Your task to perform on an android device: open the mobile data screen to see how much data has been used Image 0: 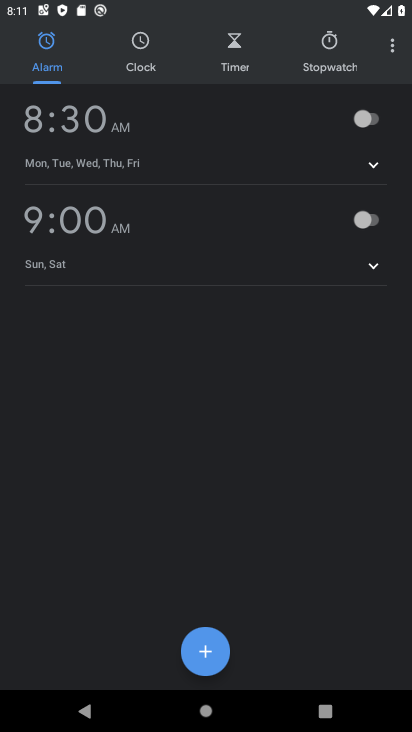
Step 0: press home button
Your task to perform on an android device: open the mobile data screen to see how much data has been used Image 1: 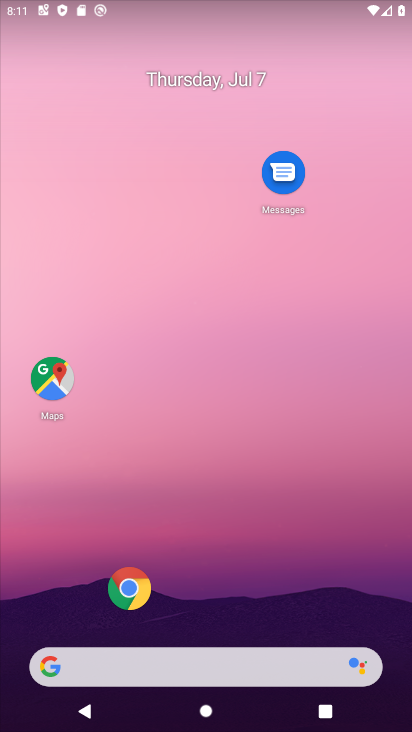
Step 1: drag from (25, 715) to (351, 10)
Your task to perform on an android device: open the mobile data screen to see how much data has been used Image 2: 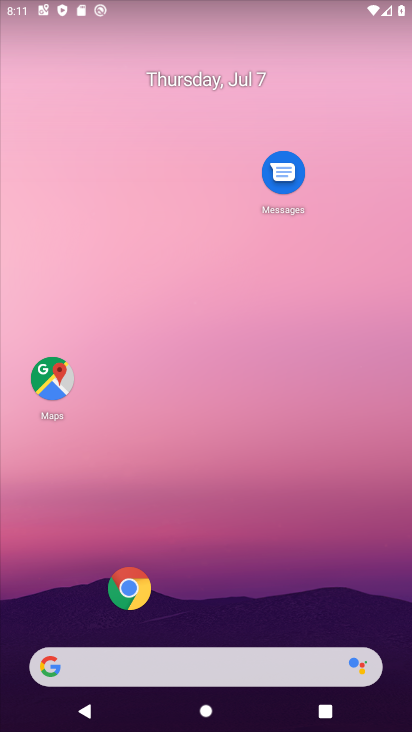
Step 2: drag from (18, 719) to (311, 35)
Your task to perform on an android device: open the mobile data screen to see how much data has been used Image 3: 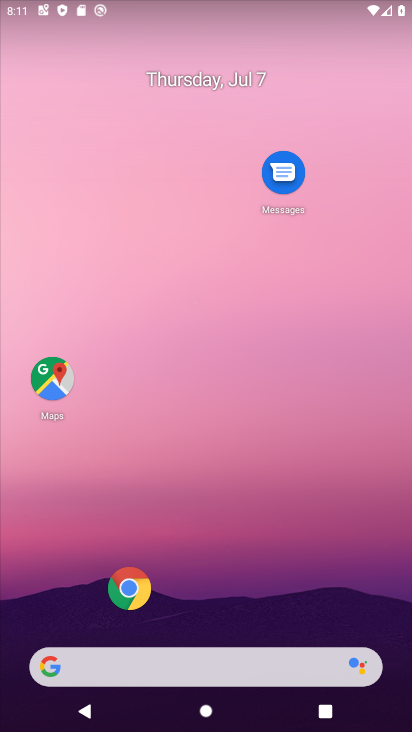
Step 3: drag from (26, 713) to (325, 23)
Your task to perform on an android device: open the mobile data screen to see how much data has been used Image 4: 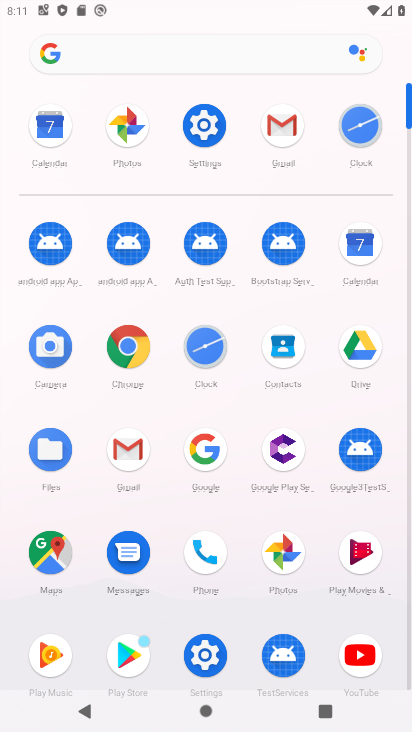
Step 4: click (204, 658)
Your task to perform on an android device: open the mobile data screen to see how much data has been used Image 5: 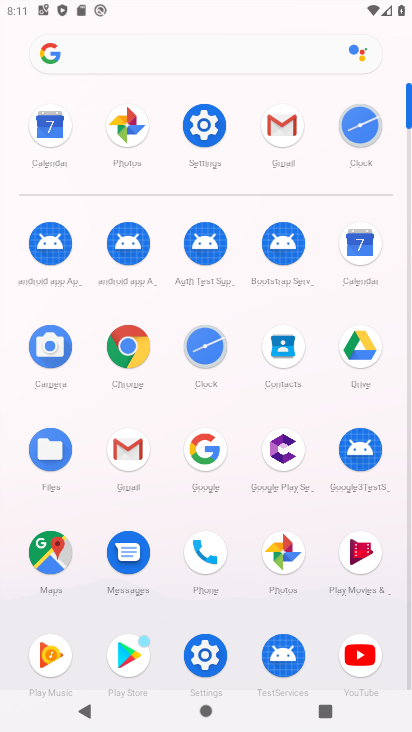
Step 5: click (204, 658)
Your task to perform on an android device: open the mobile data screen to see how much data has been used Image 6: 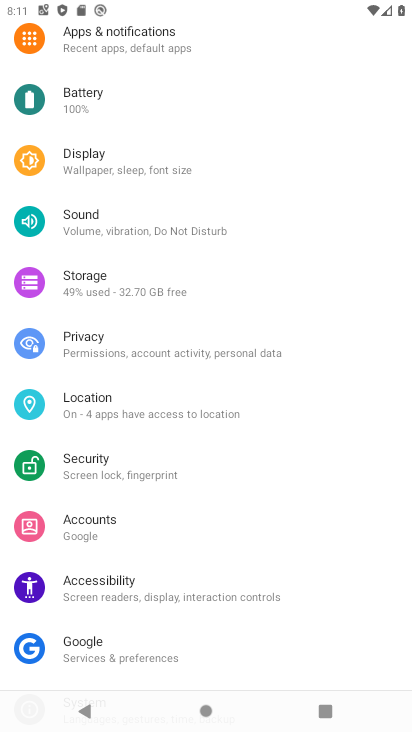
Step 6: drag from (289, 417) to (351, 48)
Your task to perform on an android device: open the mobile data screen to see how much data has been used Image 7: 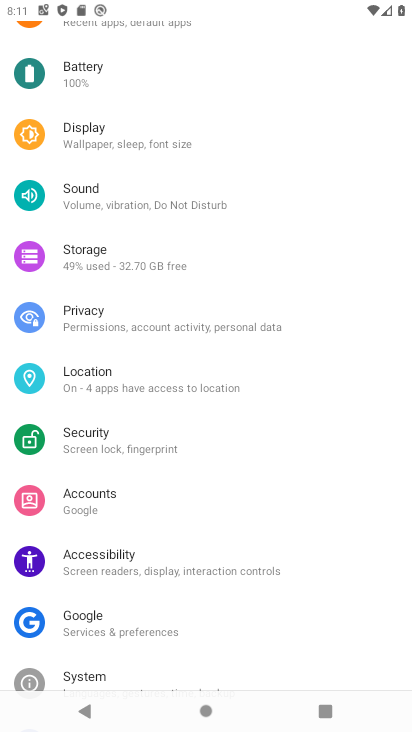
Step 7: click (284, 0)
Your task to perform on an android device: open the mobile data screen to see how much data has been used Image 8: 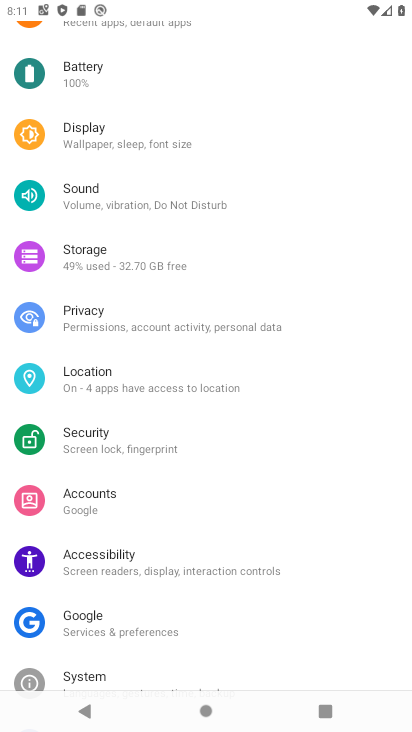
Step 8: drag from (221, 204) to (224, 83)
Your task to perform on an android device: open the mobile data screen to see how much data has been used Image 9: 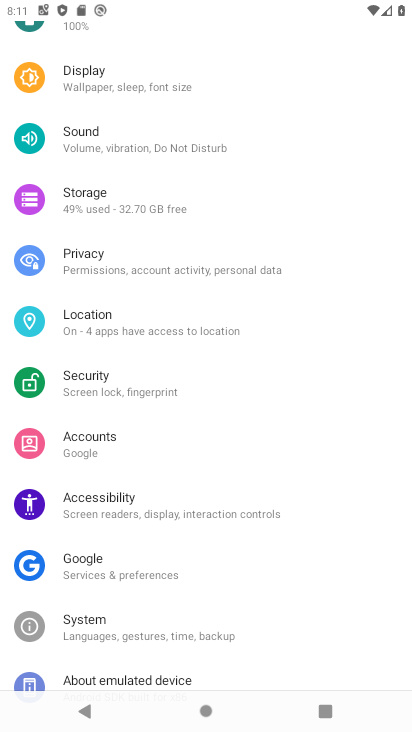
Step 9: drag from (225, 88) to (231, 524)
Your task to perform on an android device: open the mobile data screen to see how much data has been used Image 10: 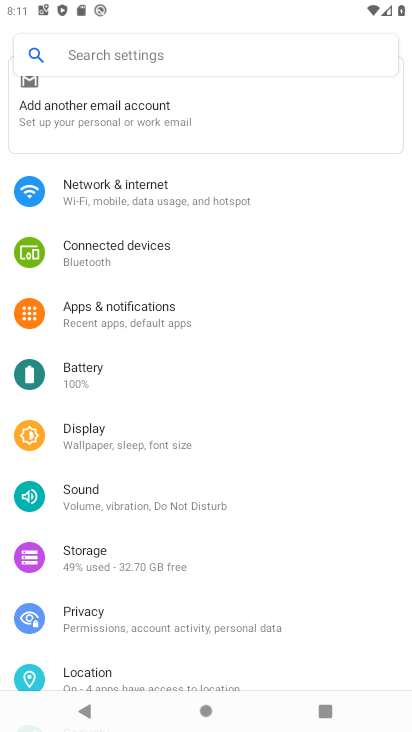
Step 10: click (89, 190)
Your task to perform on an android device: open the mobile data screen to see how much data has been used Image 11: 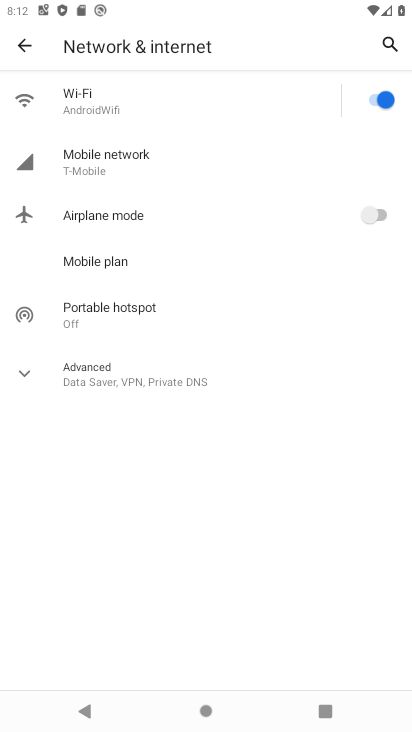
Step 11: click (106, 156)
Your task to perform on an android device: open the mobile data screen to see how much data has been used Image 12: 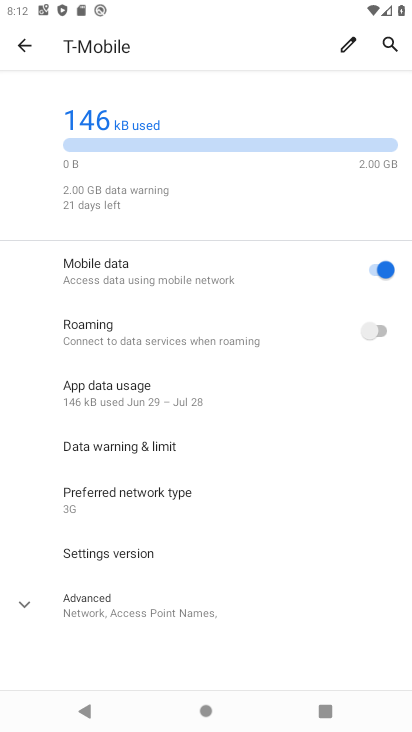
Step 12: task complete